Your task to perform on an android device: clear history in the chrome app Image 0: 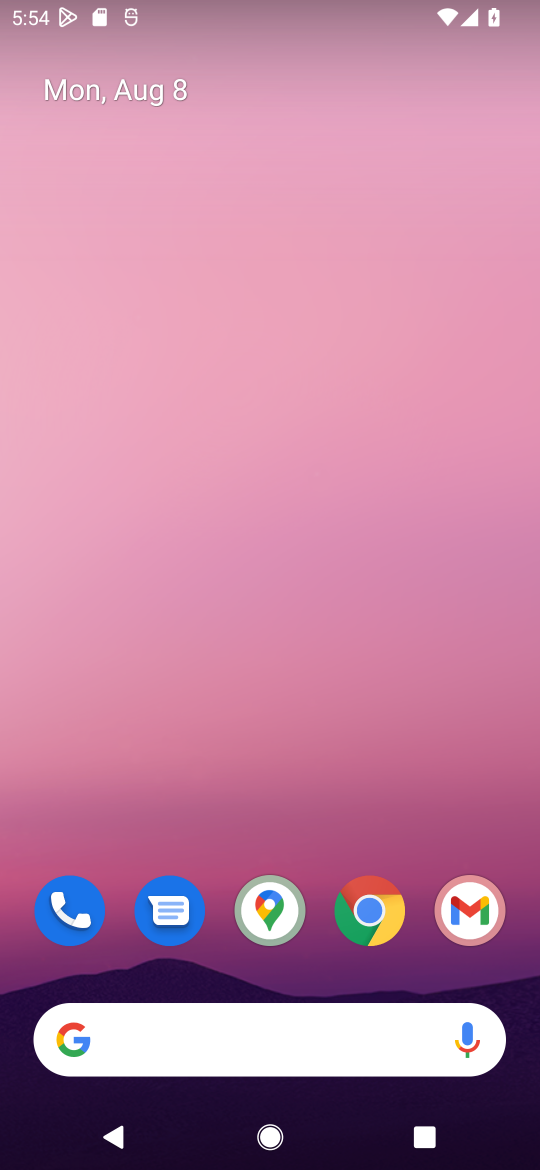
Step 0: click (387, 923)
Your task to perform on an android device: clear history in the chrome app Image 1: 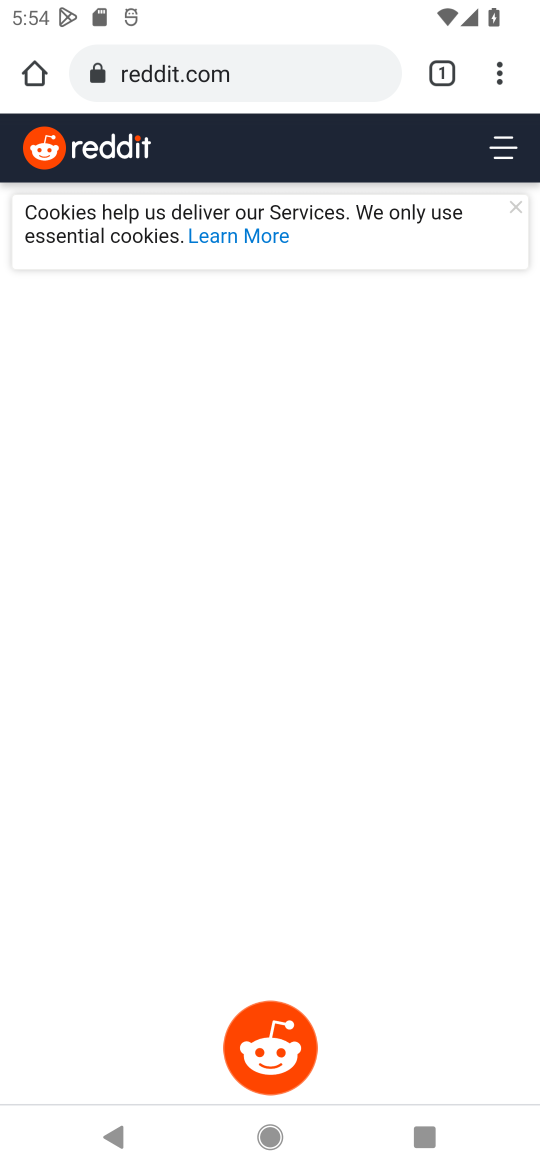
Step 1: click (496, 63)
Your task to perform on an android device: clear history in the chrome app Image 2: 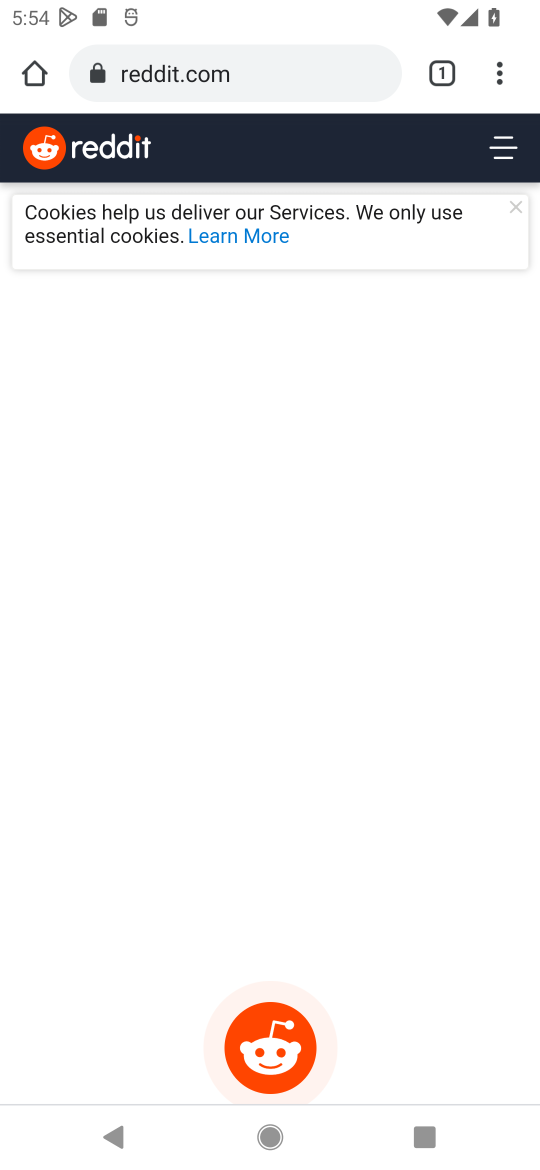
Step 2: click (491, 67)
Your task to perform on an android device: clear history in the chrome app Image 3: 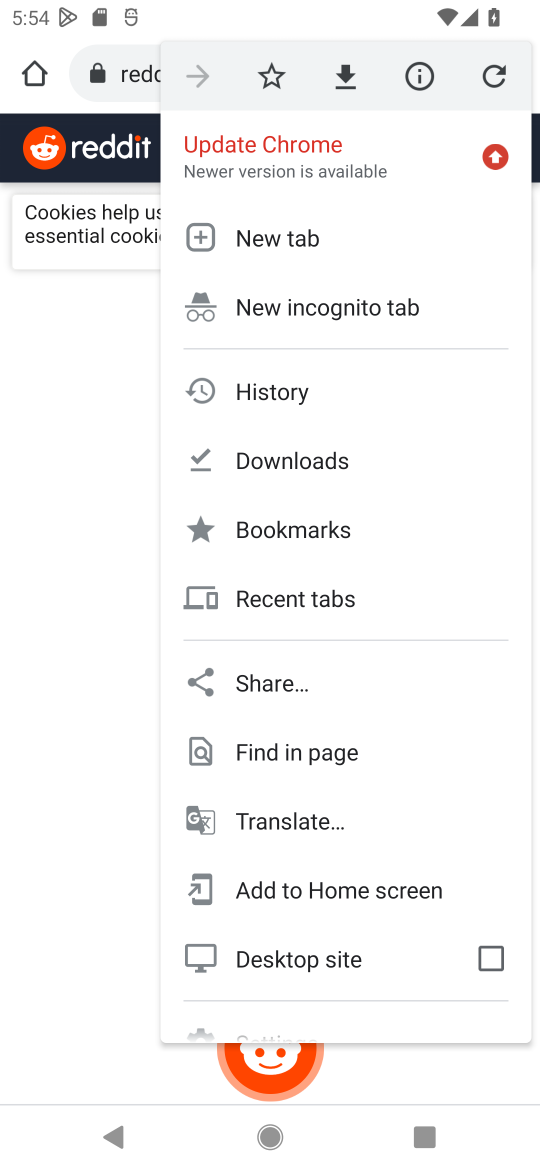
Step 3: click (289, 380)
Your task to perform on an android device: clear history in the chrome app Image 4: 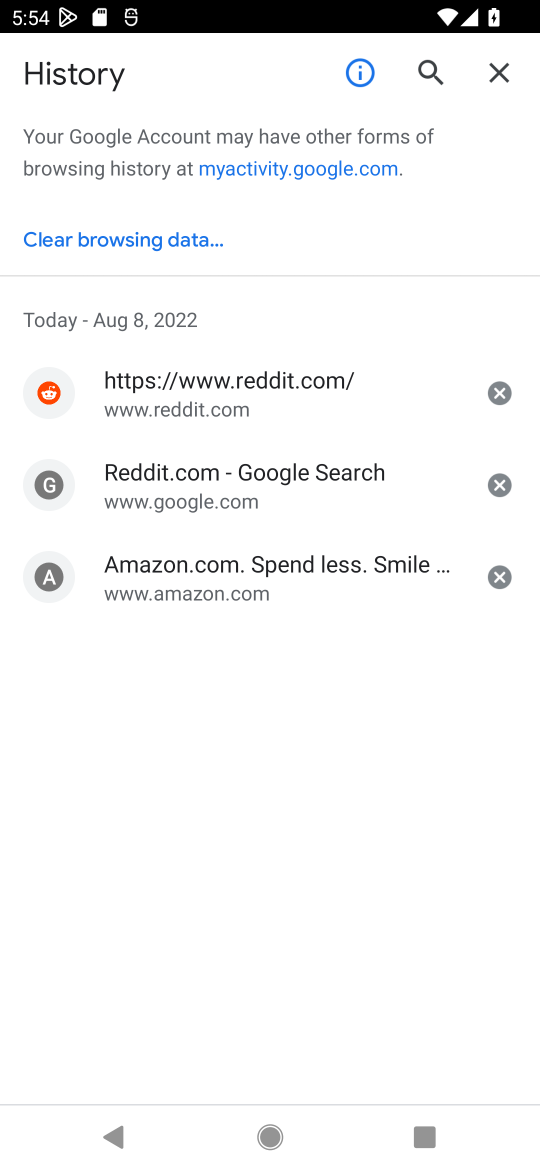
Step 4: click (161, 233)
Your task to perform on an android device: clear history in the chrome app Image 5: 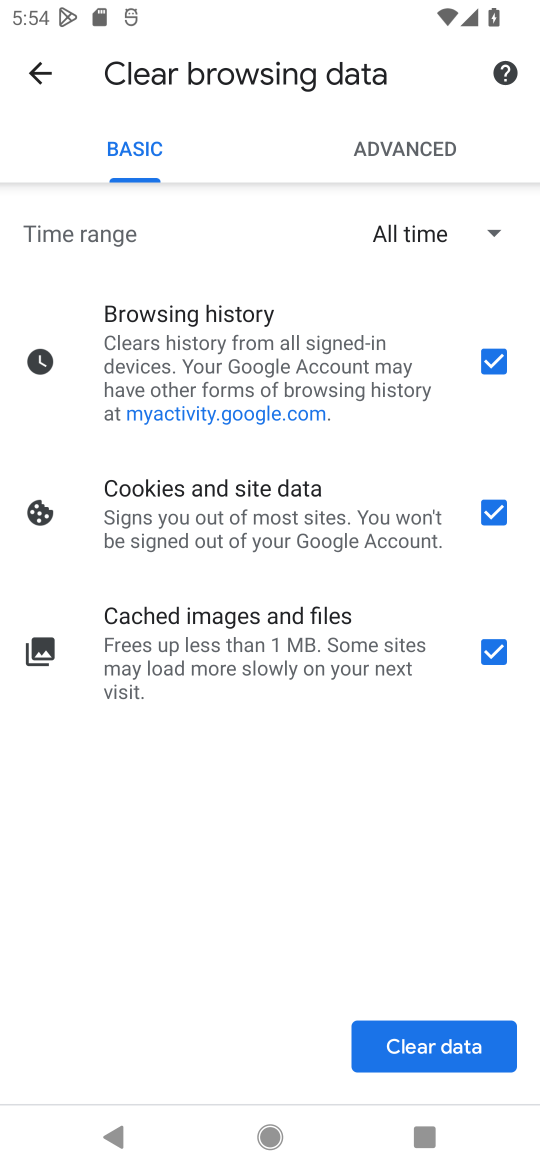
Step 5: click (436, 1062)
Your task to perform on an android device: clear history in the chrome app Image 6: 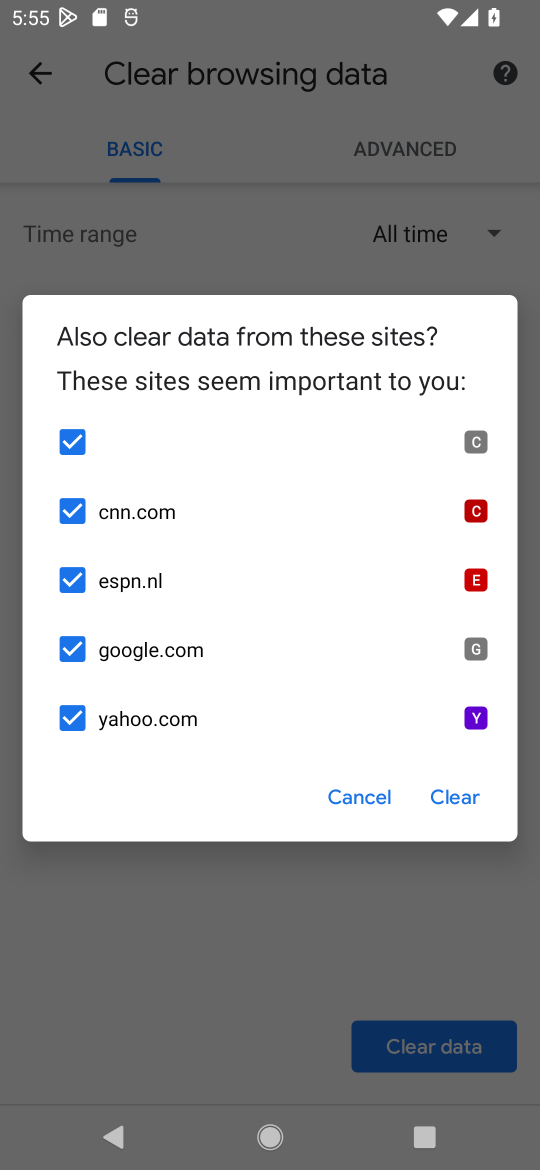
Step 6: click (452, 786)
Your task to perform on an android device: clear history in the chrome app Image 7: 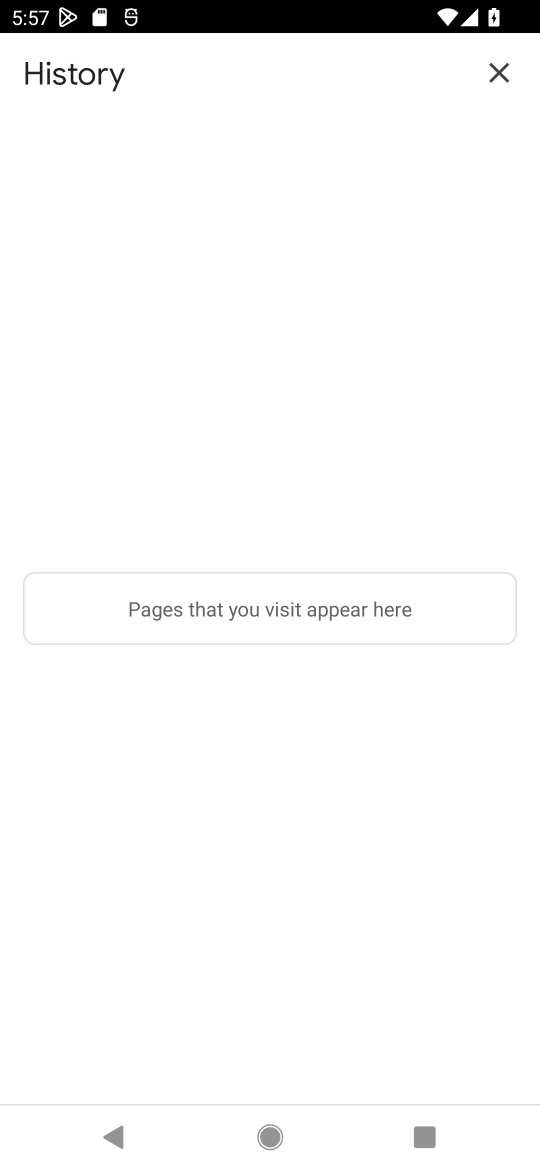
Step 7: task complete